Your task to perform on an android device: How much does a 2 bedroom apartment rent for in Austin? Image 0: 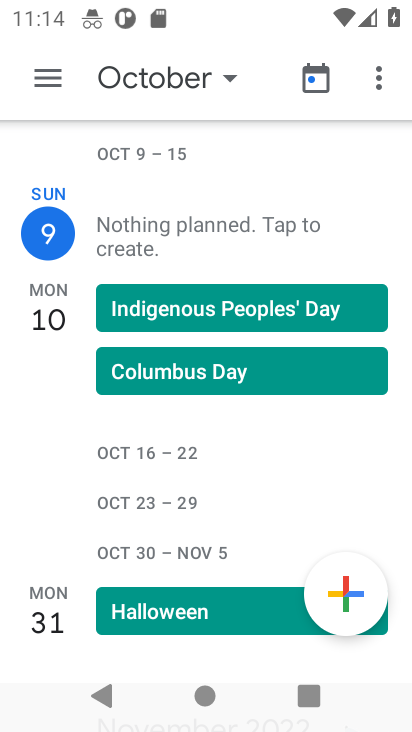
Step 0: click (260, 502)
Your task to perform on an android device: How much does a 2 bedroom apartment rent for in Austin? Image 1: 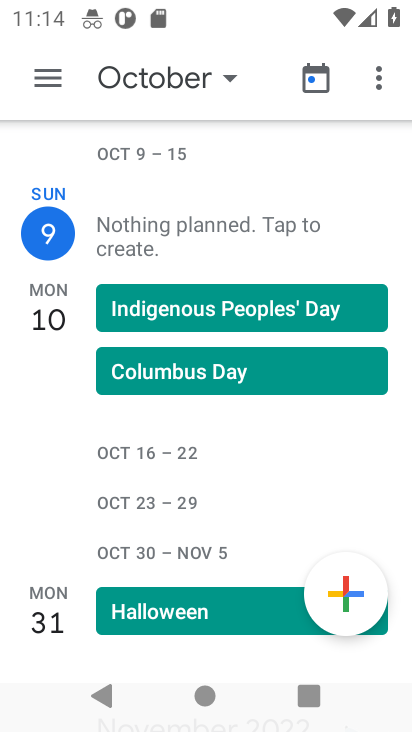
Step 1: press home button
Your task to perform on an android device: How much does a 2 bedroom apartment rent for in Austin? Image 2: 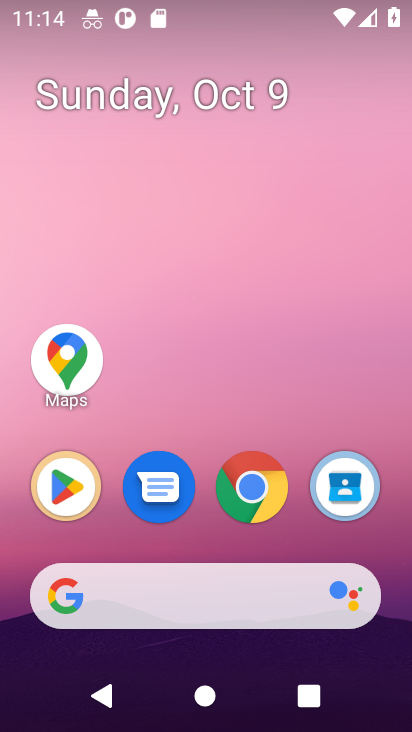
Step 2: click (264, 502)
Your task to perform on an android device: How much does a 2 bedroom apartment rent for in Austin? Image 3: 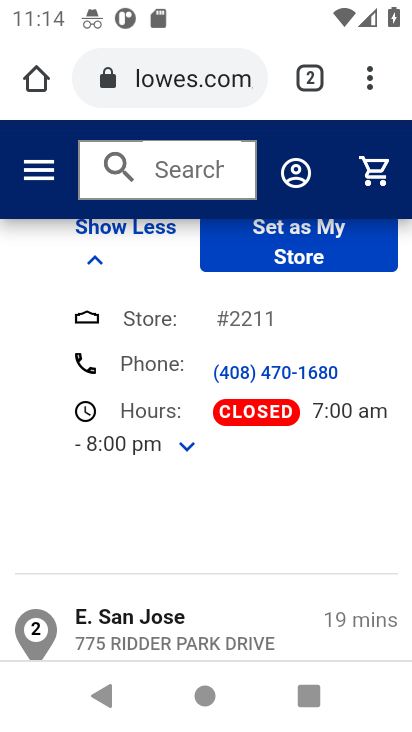
Step 3: click (173, 92)
Your task to perform on an android device: How much does a 2 bedroom apartment rent for in Austin? Image 4: 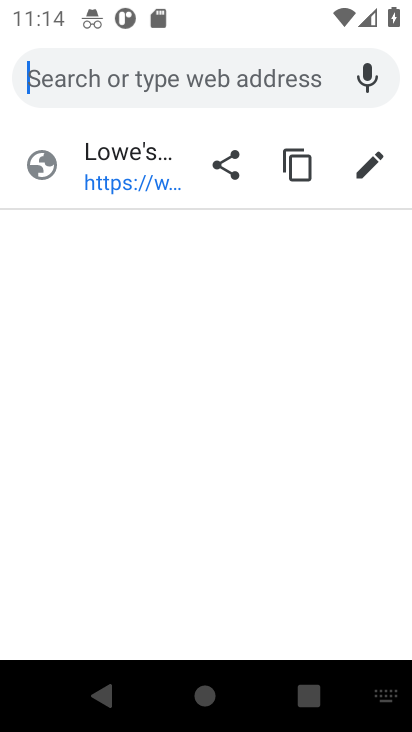
Step 4: type "2 bedroom apartment rent in Austin"
Your task to perform on an android device: How much does a 2 bedroom apartment rent for in Austin? Image 5: 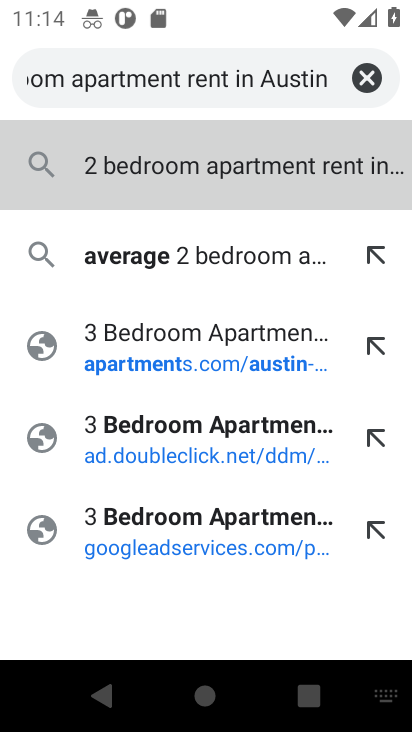
Step 5: type ""
Your task to perform on an android device: How much does a 2 bedroom apartment rent for in Austin? Image 6: 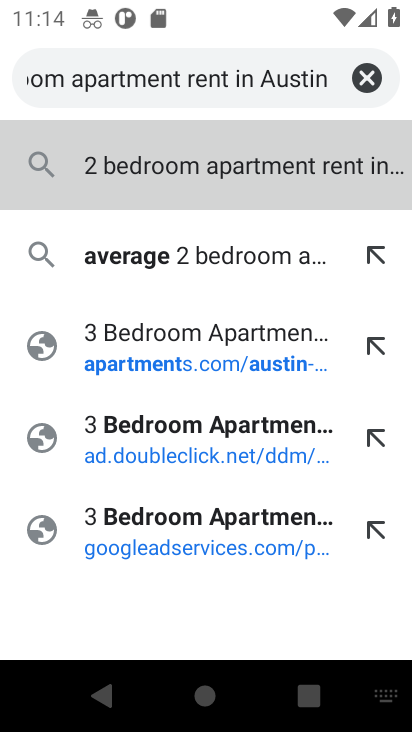
Step 6: press enter
Your task to perform on an android device: How much does a 2 bedroom apartment rent for in Austin? Image 7: 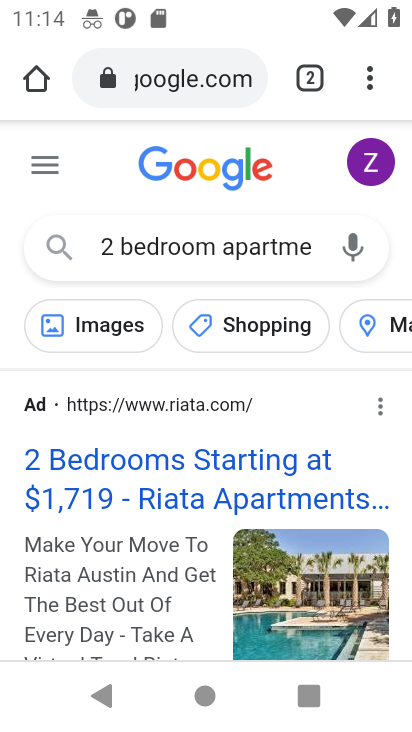
Step 7: drag from (170, 564) to (204, 220)
Your task to perform on an android device: How much does a 2 bedroom apartment rent for in Austin? Image 8: 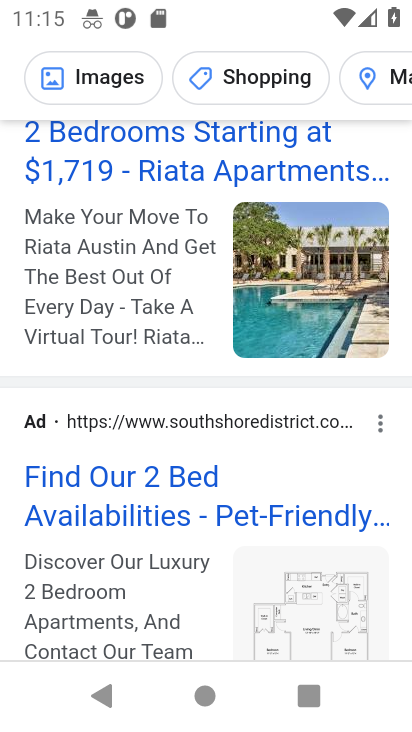
Step 8: drag from (195, 535) to (177, 301)
Your task to perform on an android device: How much does a 2 bedroom apartment rent for in Austin? Image 9: 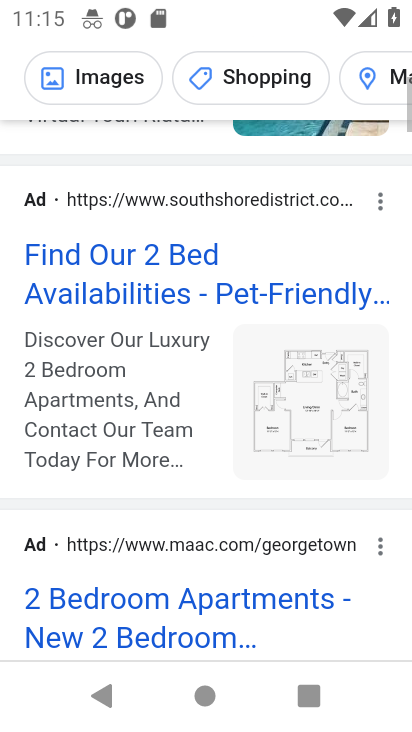
Step 9: drag from (183, 469) to (173, 292)
Your task to perform on an android device: How much does a 2 bedroom apartment rent for in Austin? Image 10: 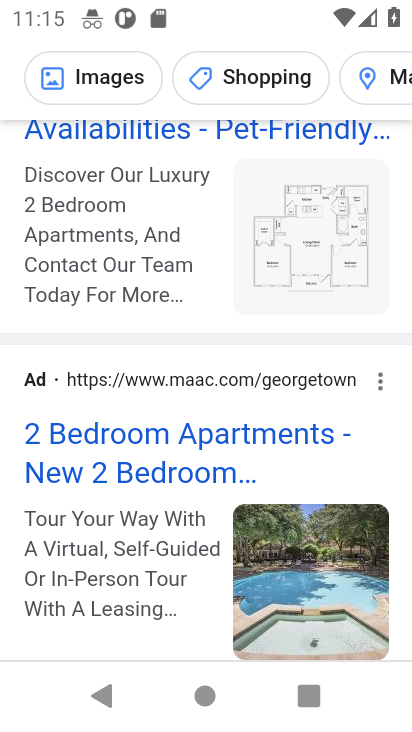
Step 10: drag from (168, 560) to (149, 206)
Your task to perform on an android device: How much does a 2 bedroom apartment rent for in Austin? Image 11: 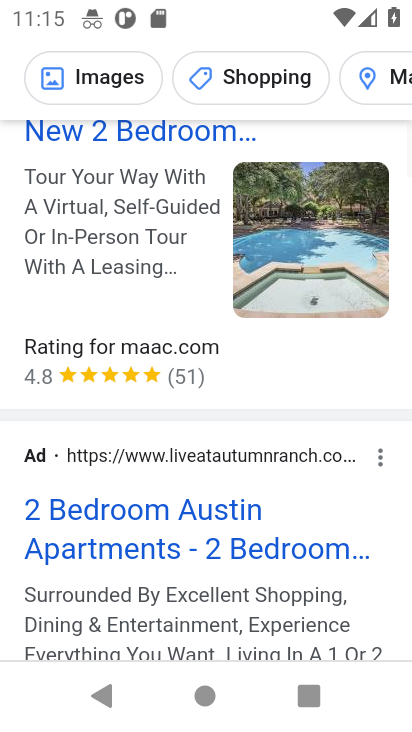
Step 11: drag from (155, 605) to (132, 290)
Your task to perform on an android device: How much does a 2 bedroom apartment rent for in Austin? Image 12: 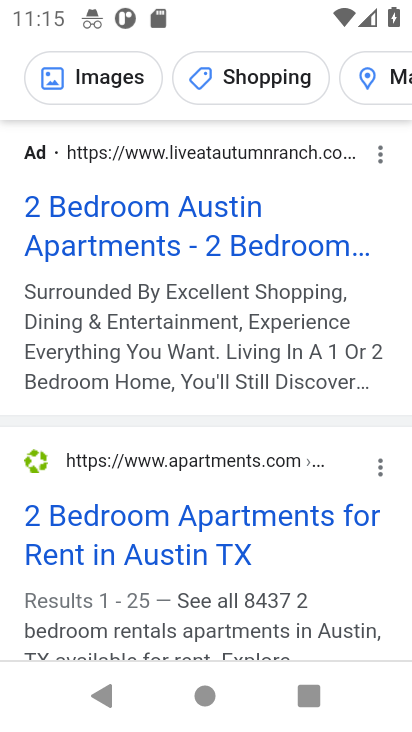
Step 12: drag from (205, 599) to (201, 376)
Your task to perform on an android device: How much does a 2 bedroom apartment rent for in Austin? Image 13: 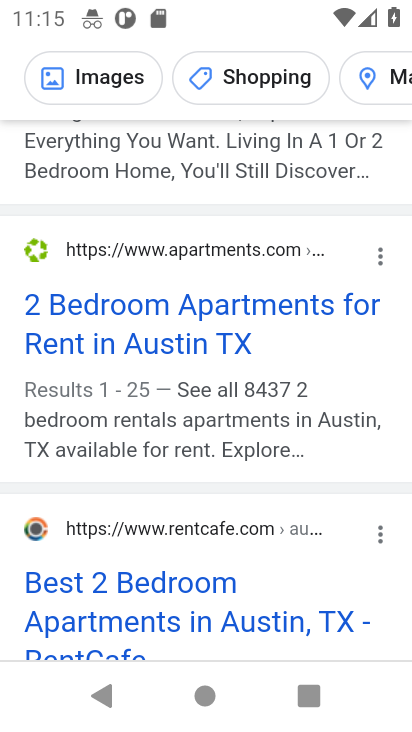
Step 13: click (185, 334)
Your task to perform on an android device: How much does a 2 bedroom apartment rent for in Austin? Image 14: 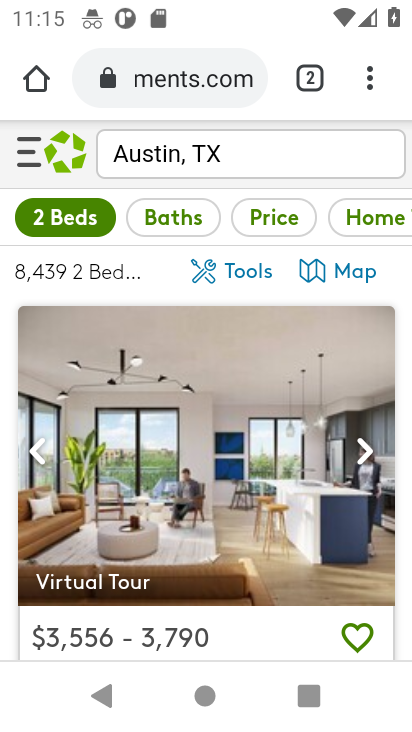
Step 14: task complete